Your task to perform on an android device: change the clock display to digital Image 0: 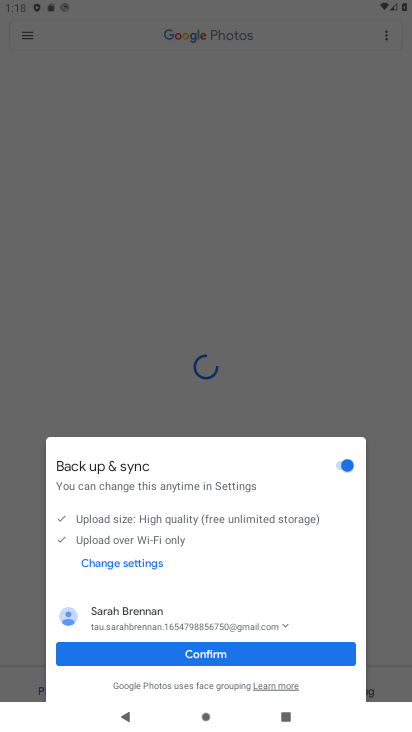
Step 0: press home button
Your task to perform on an android device: change the clock display to digital Image 1: 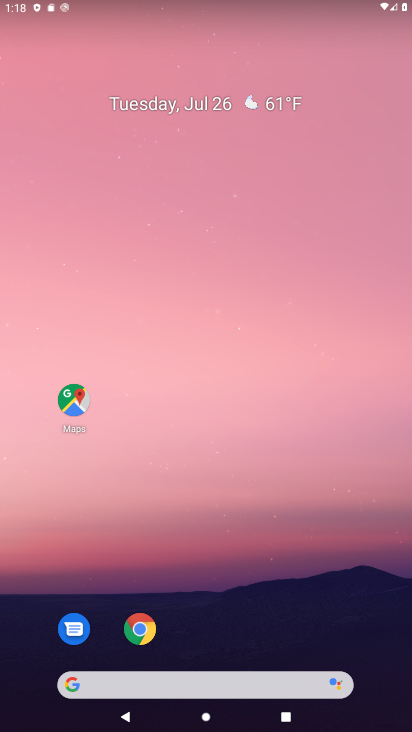
Step 1: drag from (223, 654) to (201, 134)
Your task to perform on an android device: change the clock display to digital Image 2: 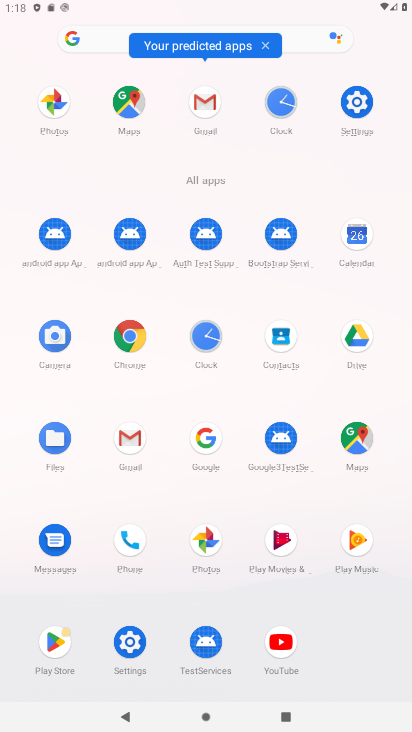
Step 2: click (289, 98)
Your task to perform on an android device: change the clock display to digital Image 3: 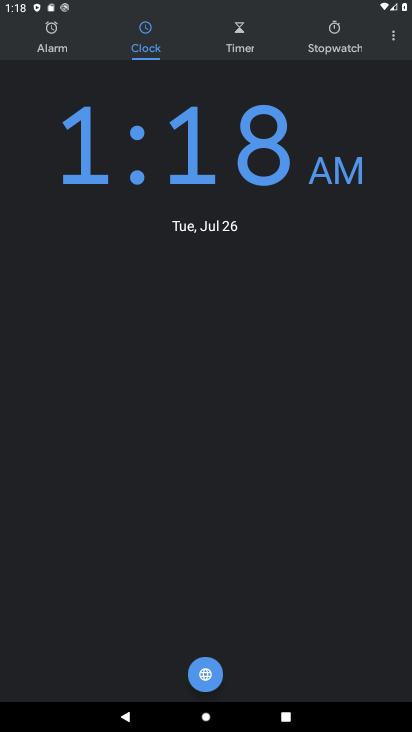
Step 3: click (395, 50)
Your task to perform on an android device: change the clock display to digital Image 4: 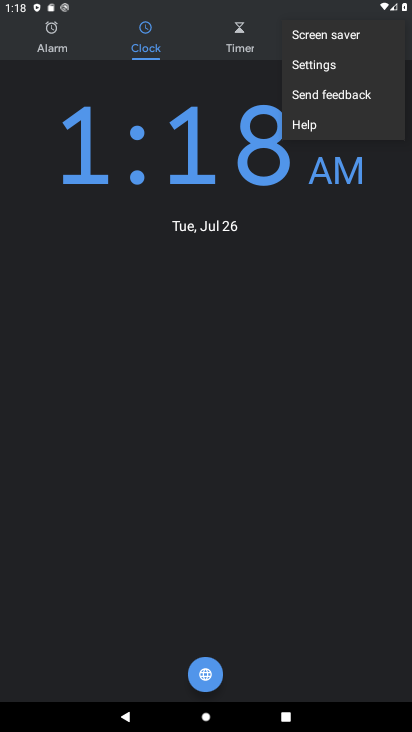
Step 4: click (329, 65)
Your task to perform on an android device: change the clock display to digital Image 5: 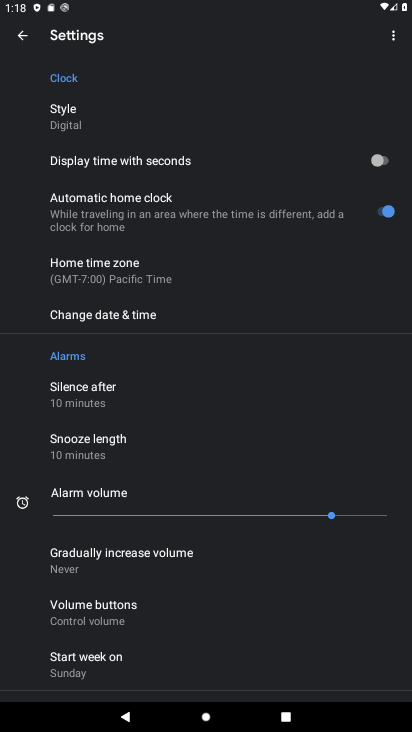
Step 5: task complete